Your task to perform on an android device: set the timer Image 0: 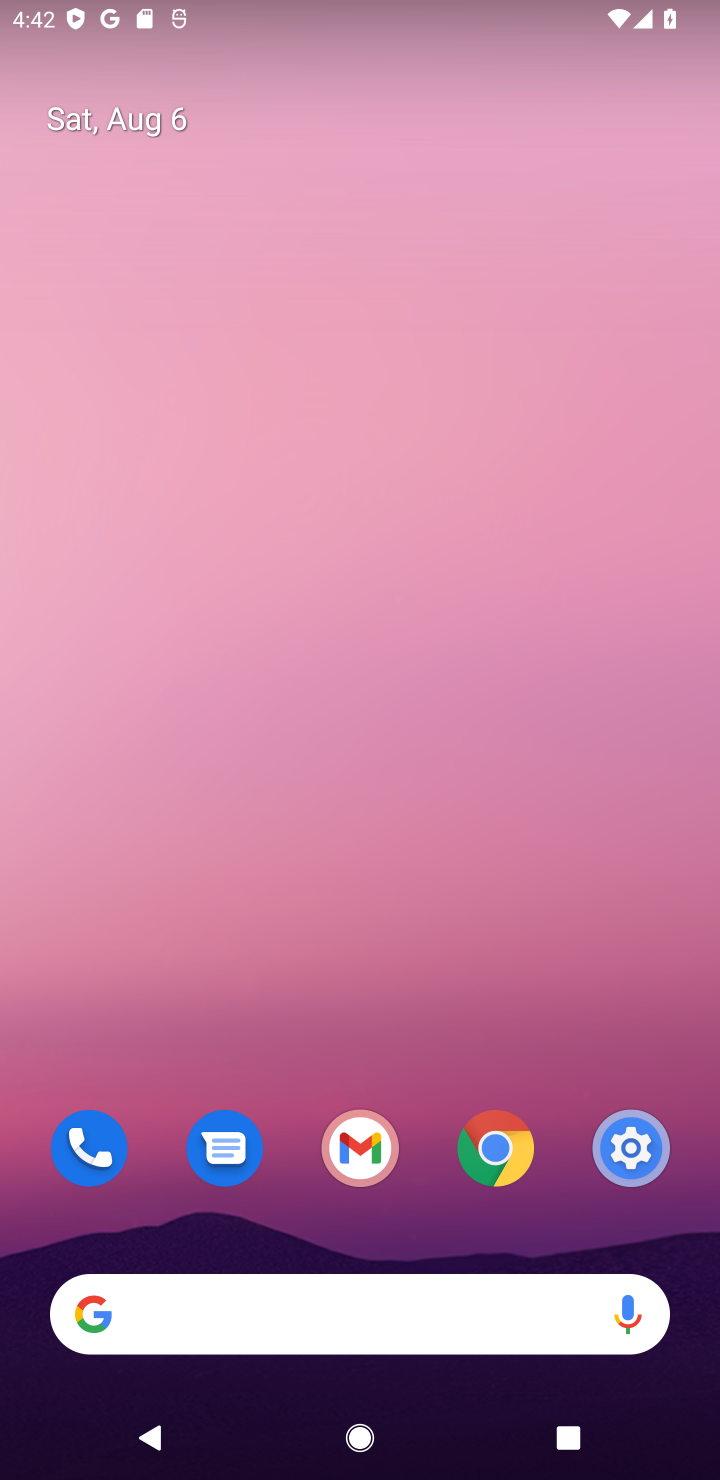
Step 0: drag from (383, 1251) to (207, 400)
Your task to perform on an android device: set the timer Image 1: 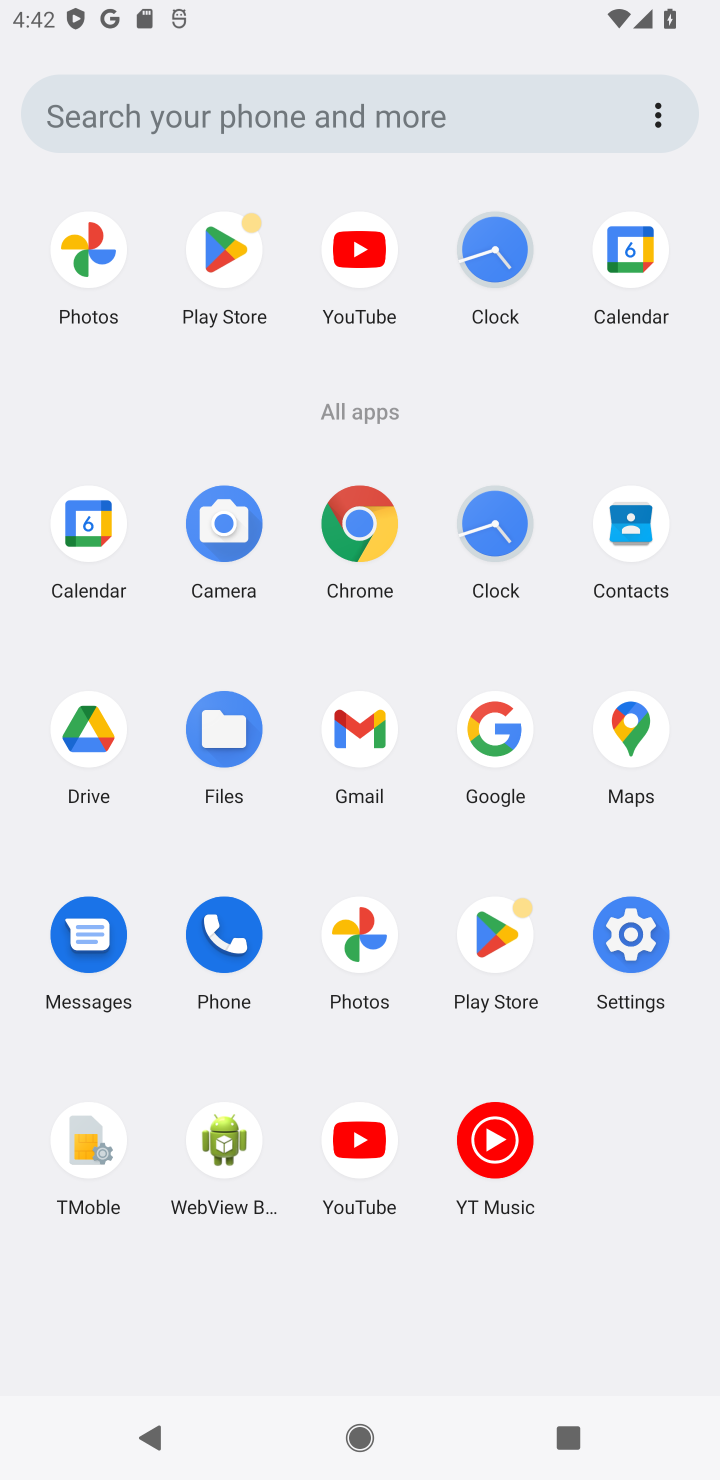
Step 1: click (480, 540)
Your task to perform on an android device: set the timer Image 2: 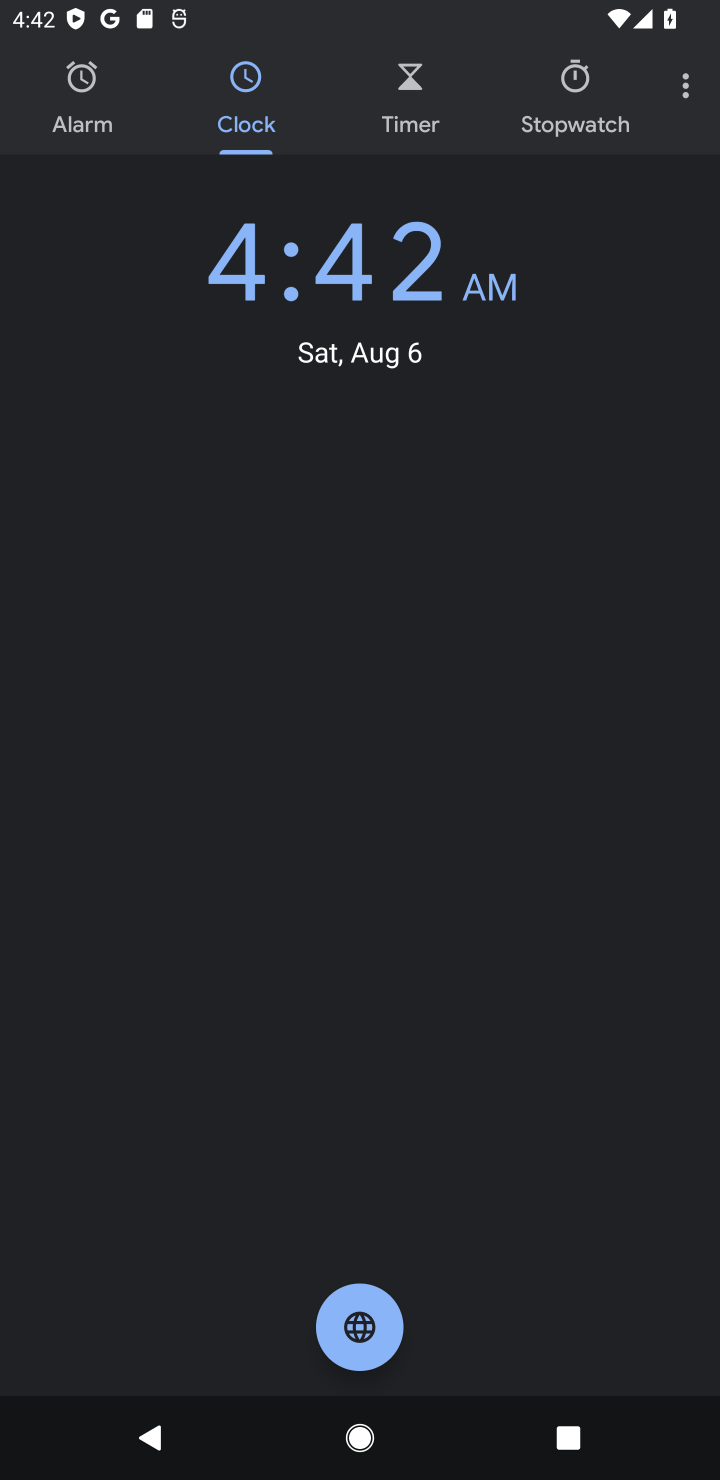
Step 2: click (409, 114)
Your task to perform on an android device: set the timer Image 3: 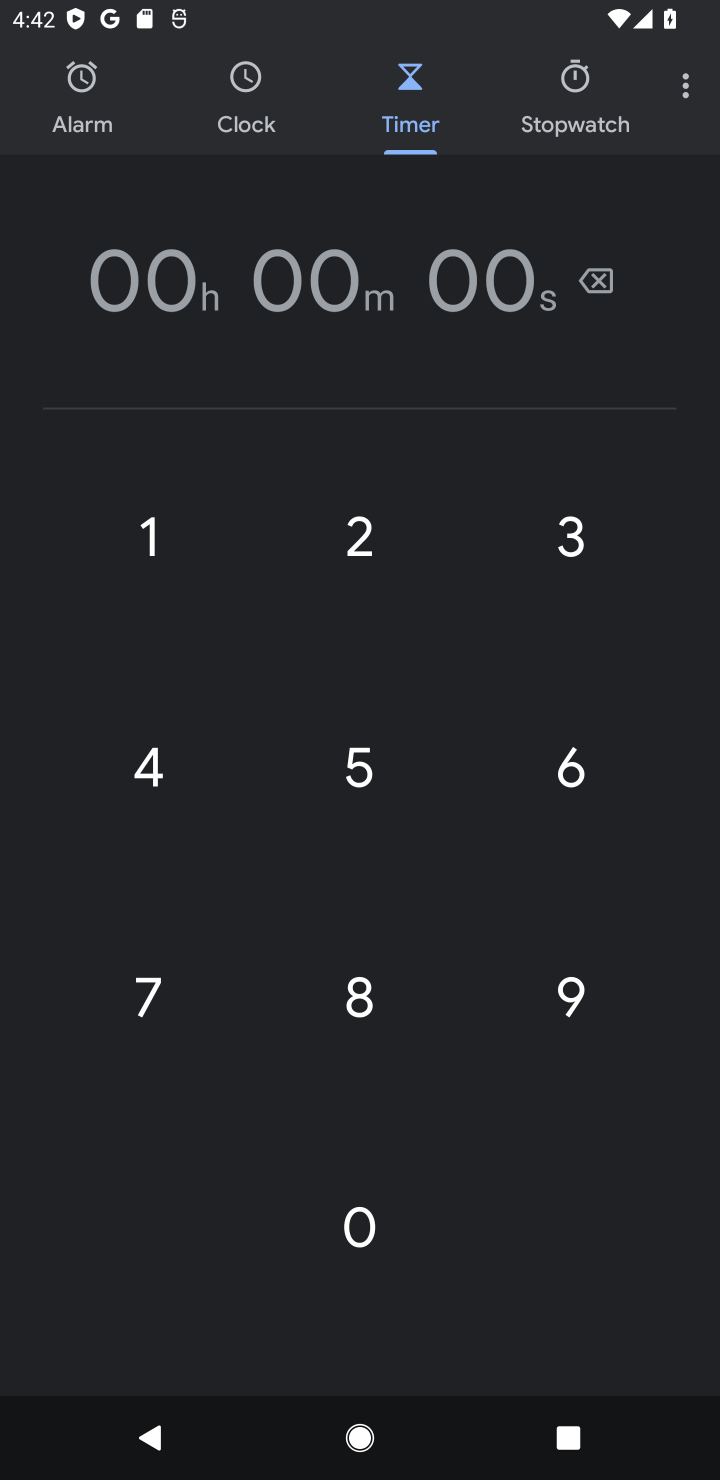
Step 3: task complete